Your task to perform on an android device: Go to Maps Image 0: 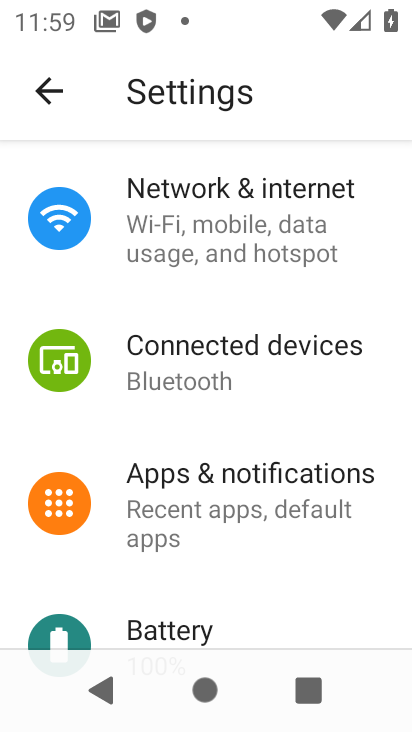
Step 0: press home button
Your task to perform on an android device: Go to Maps Image 1: 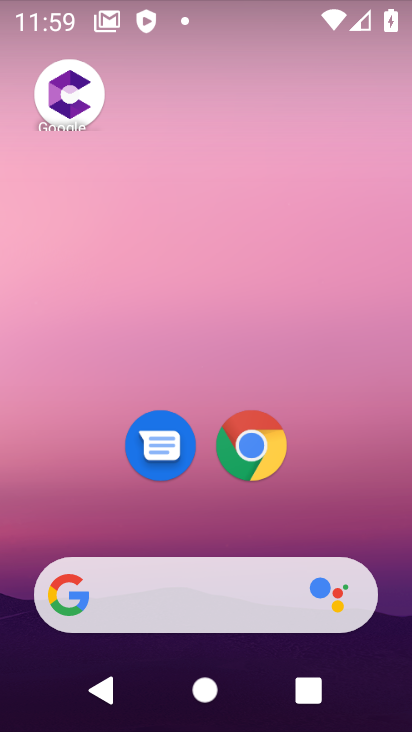
Step 1: drag from (364, 573) to (213, 197)
Your task to perform on an android device: Go to Maps Image 2: 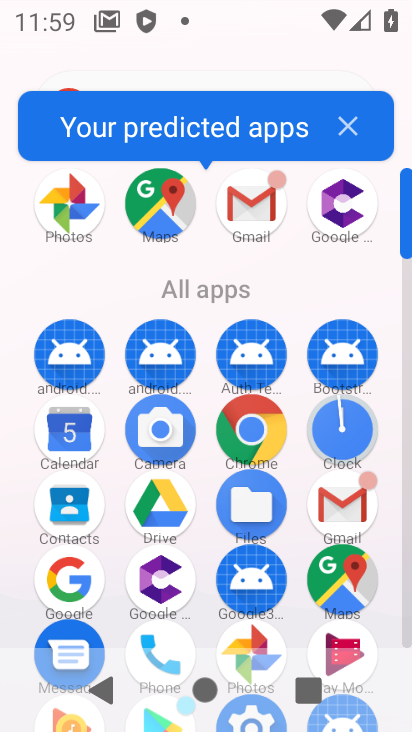
Step 2: click (145, 201)
Your task to perform on an android device: Go to Maps Image 3: 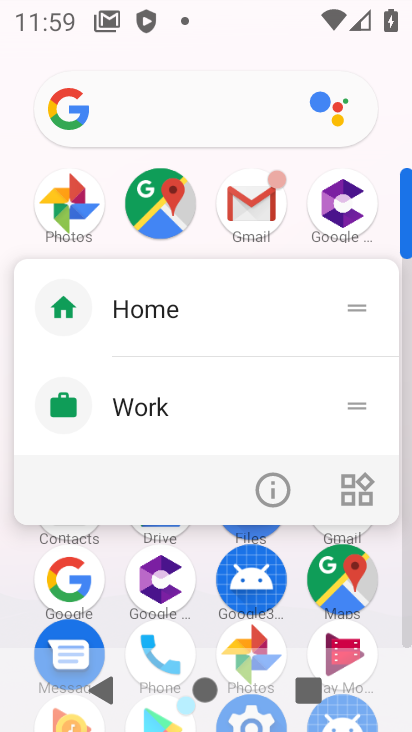
Step 3: click (155, 212)
Your task to perform on an android device: Go to Maps Image 4: 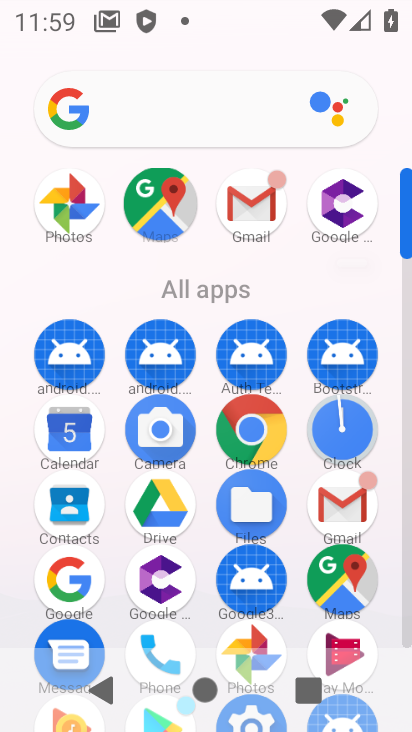
Step 4: click (166, 201)
Your task to perform on an android device: Go to Maps Image 5: 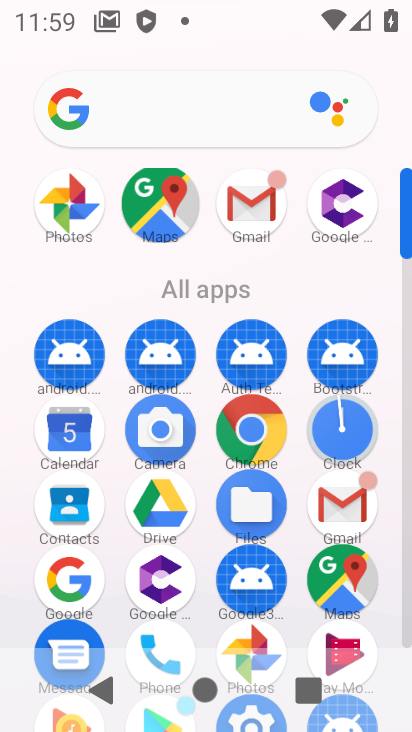
Step 5: click (157, 203)
Your task to perform on an android device: Go to Maps Image 6: 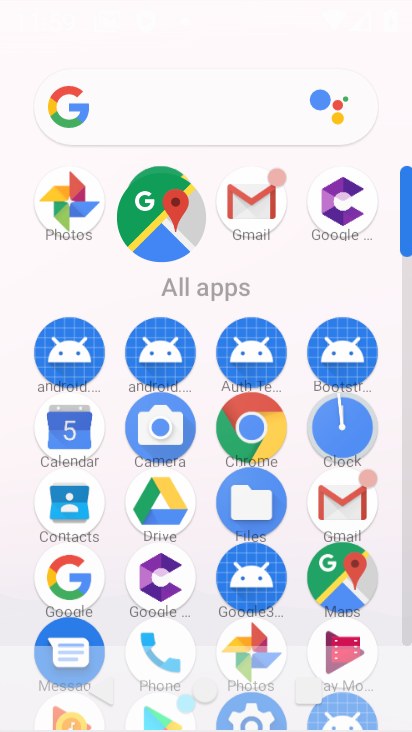
Step 6: click (157, 203)
Your task to perform on an android device: Go to Maps Image 7: 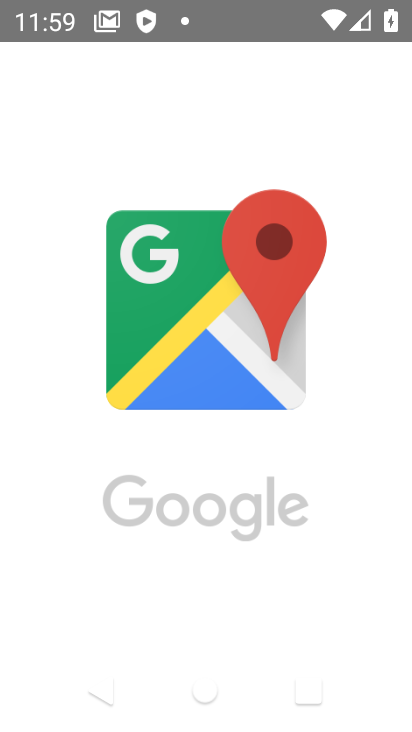
Step 7: click (158, 203)
Your task to perform on an android device: Go to Maps Image 8: 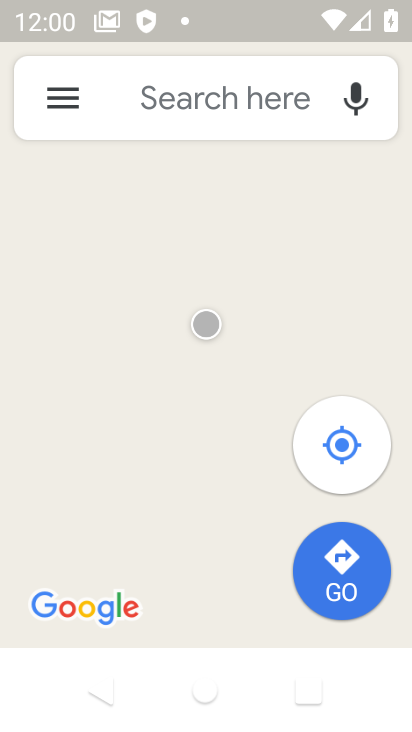
Step 8: task complete